Your task to perform on an android device: Set an alarm for 1pm Image 0: 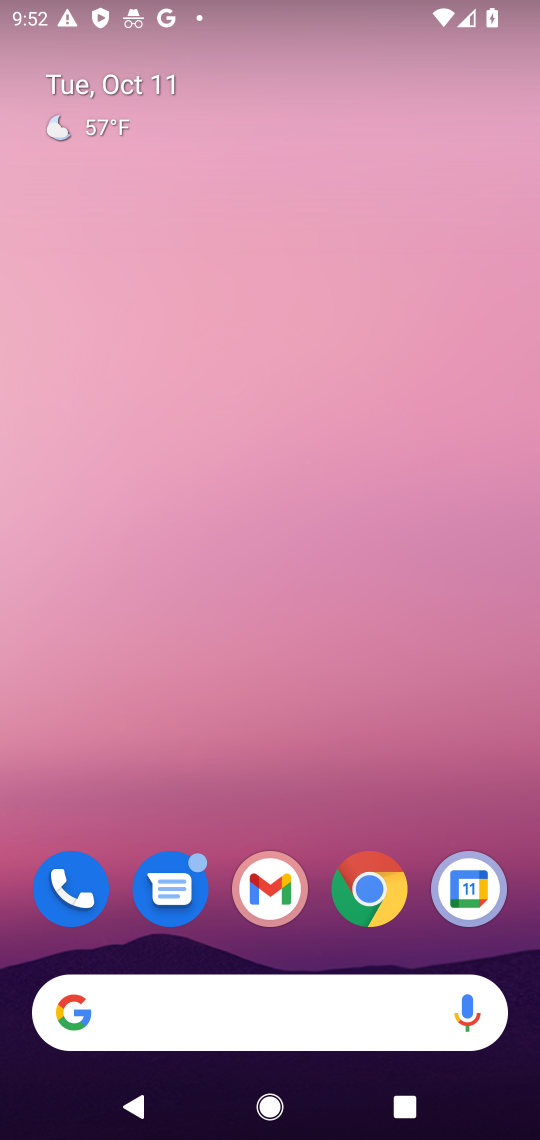
Step 0: drag from (201, 957) to (330, 195)
Your task to perform on an android device: Set an alarm for 1pm Image 1: 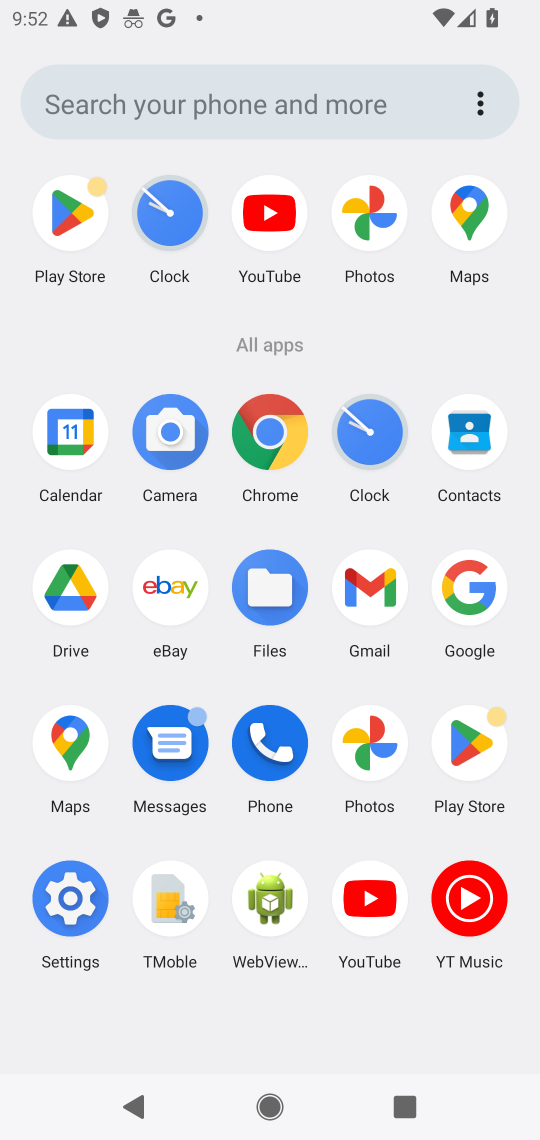
Step 1: click (376, 456)
Your task to perform on an android device: Set an alarm for 1pm Image 2: 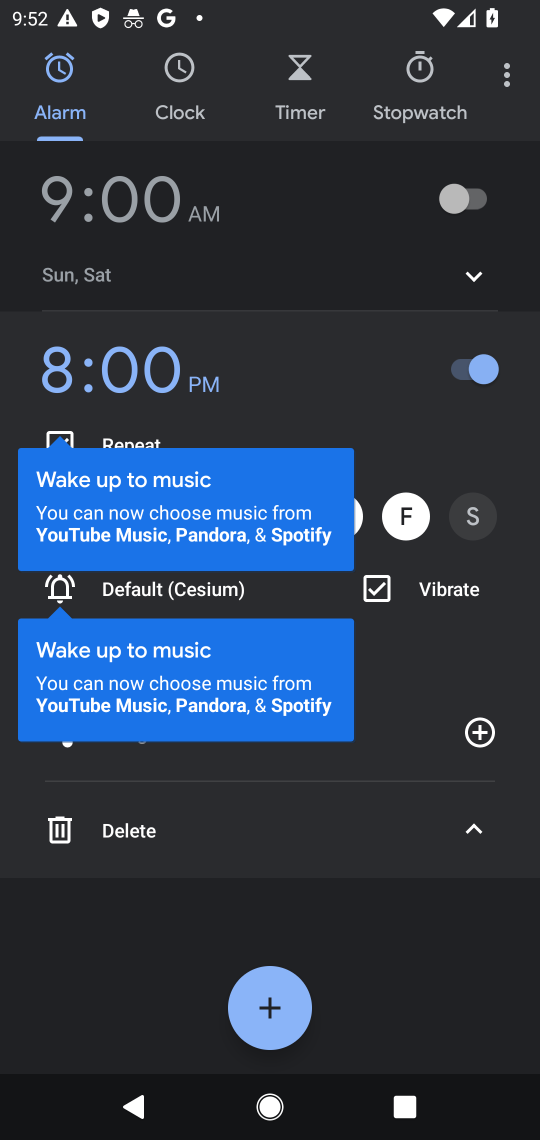
Step 2: click (82, 190)
Your task to perform on an android device: Set an alarm for 1pm Image 3: 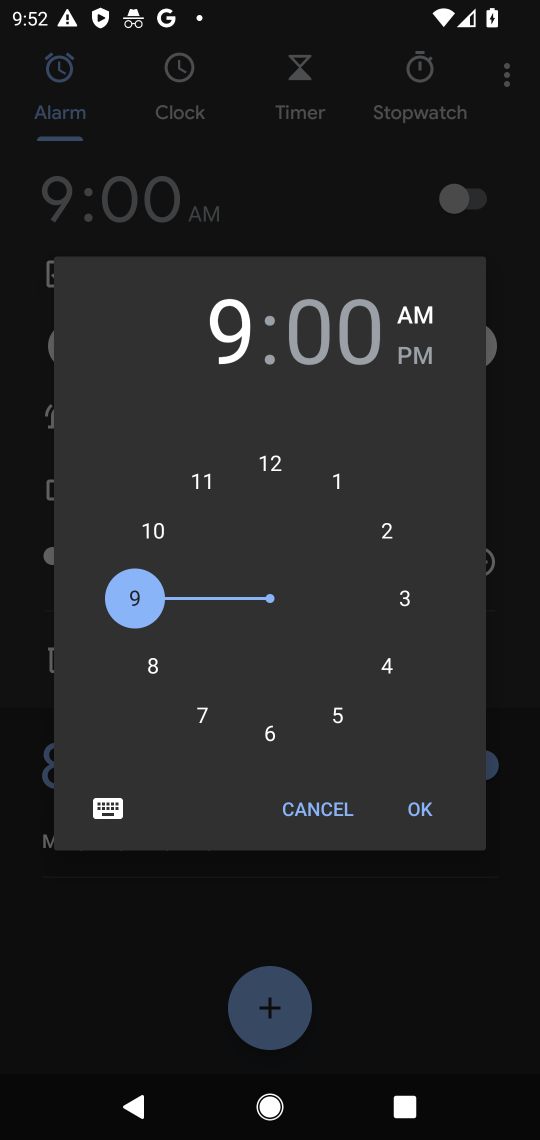
Step 3: click (333, 474)
Your task to perform on an android device: Set an alarm for 1pm Image 4: 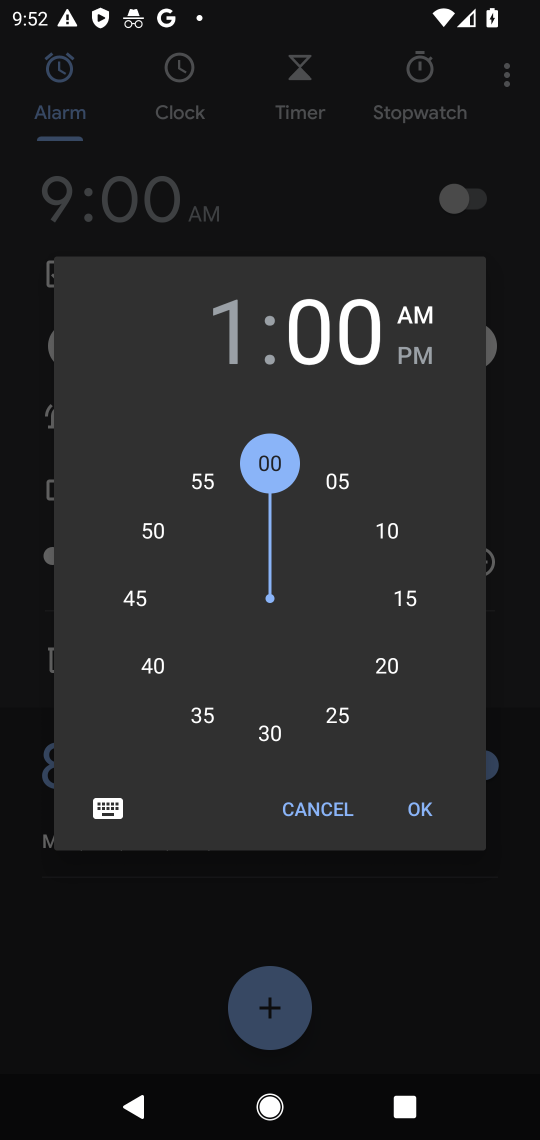
Step 4: click (417, 367)
Your task to perform on an android device: Set an alarm for 1pm Image 5: 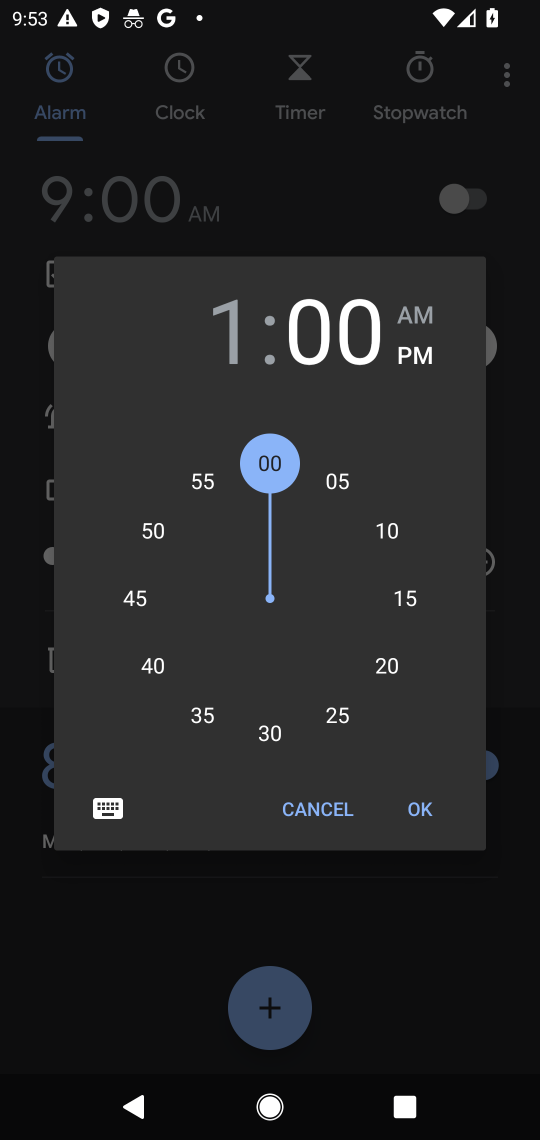
Step 5: click (413, 783)
Your task to perform on an android device: Set an alarm for 1pm Image 6: 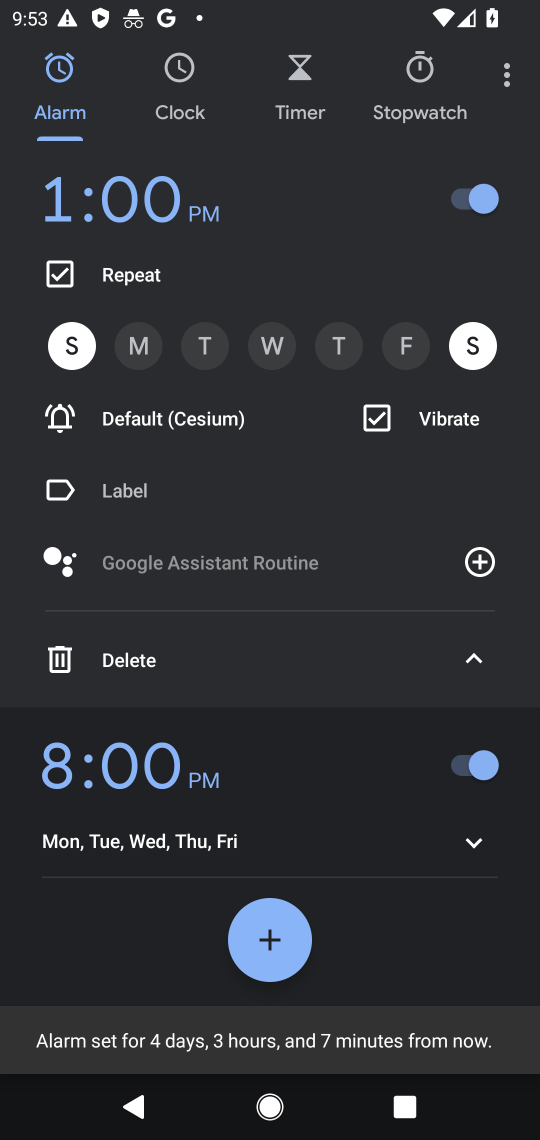
Step 6: task complete